Your task to perform on an android device: add a contact in the contacts app Image 0: 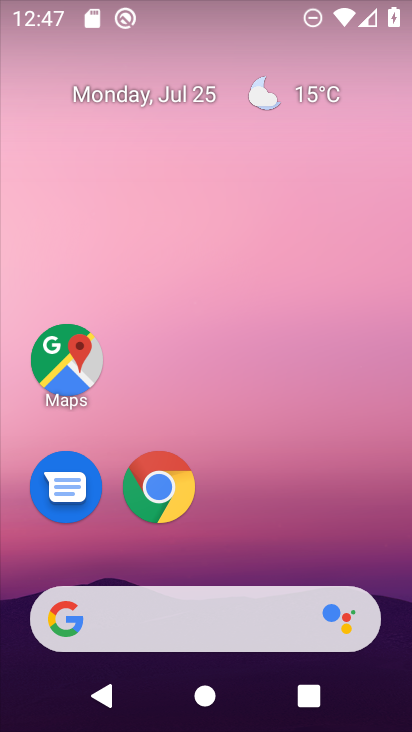
Step 0: drag from (237, 539) to (309, 9)
Your task to perform on an android device: add a contact in the contacts app Image 1: 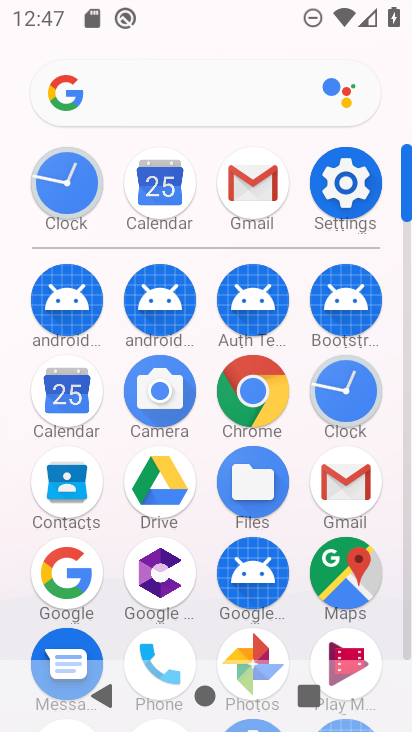
Step 1: click (67, 489)
Your task to perform on an android device: add a contact in the contacts app Image 2: 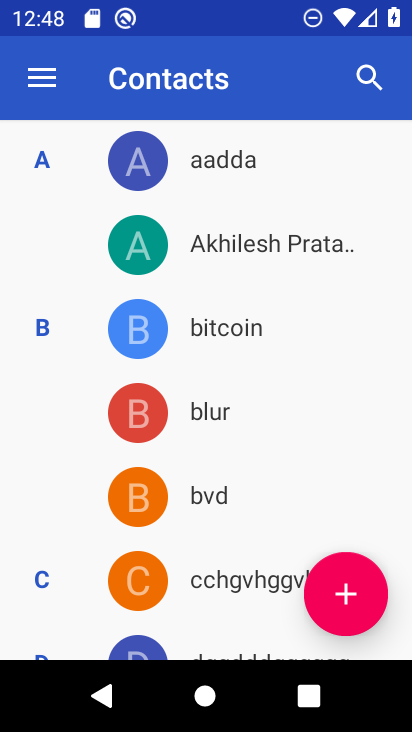
Step 2: click (339, 600)
Your task to perform on an android device: add a contact in the contacts app Image 3: 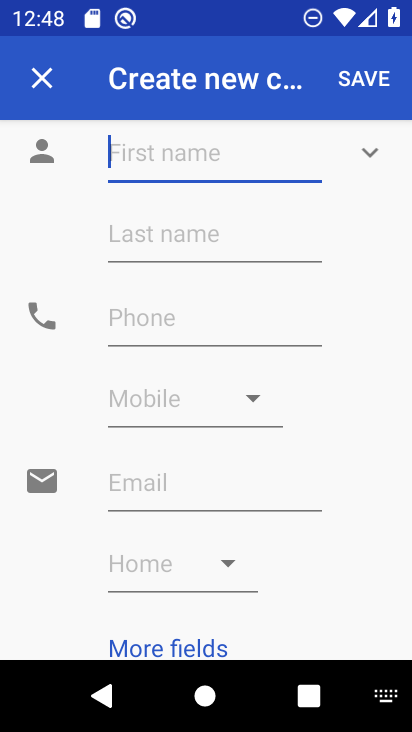
Step 3: click (149, 140)
Your task to perform on an android device: add a contact in the contacts app Image 4: 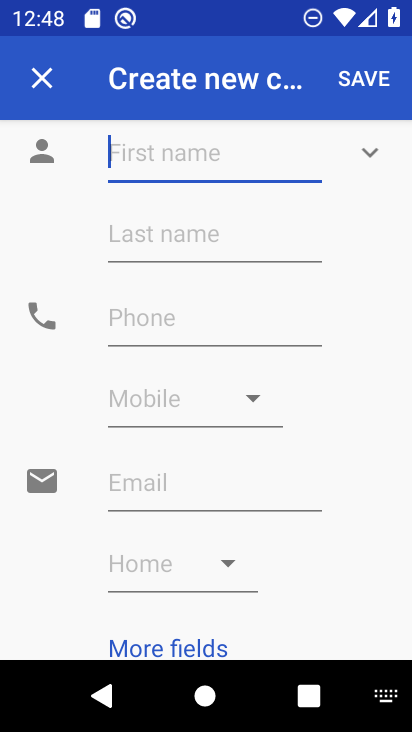
Step 4: type "ghh"
Your task to perform on an android device: add a contact in the contacts app Image 5: 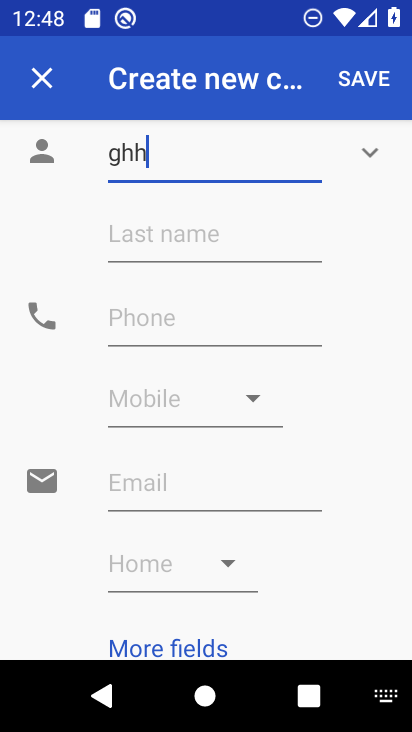
Step 5: click (116, 303)
Your task to perform on an android device: add a contact in the contacts app Image 6: 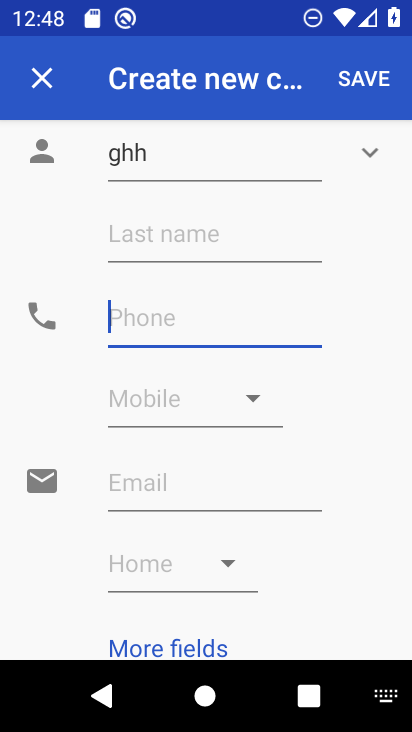
Step 6: type "8868"
Your task to perform on an android device: add a contact in the contacts app Image 7: 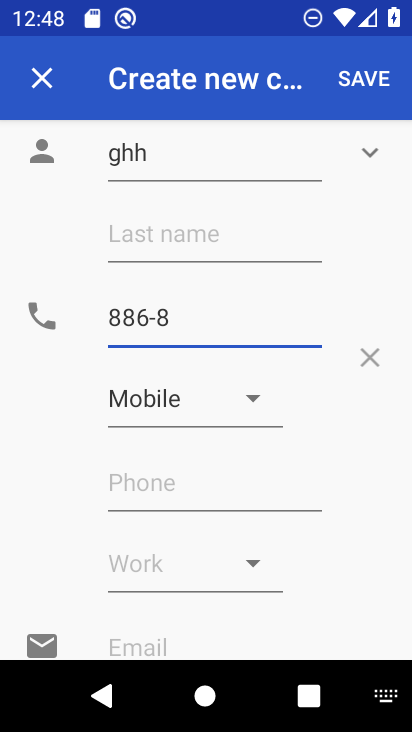
Step 7: click (366, 83)
Your task to perform on an android device: add a contact in the contacts app Image 8: 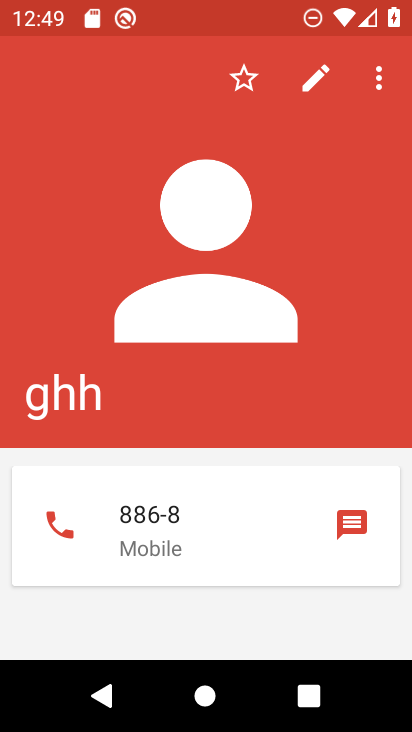
Step 8: task complete